Your task to perform on an android device: change the clock display to digital Image 0: 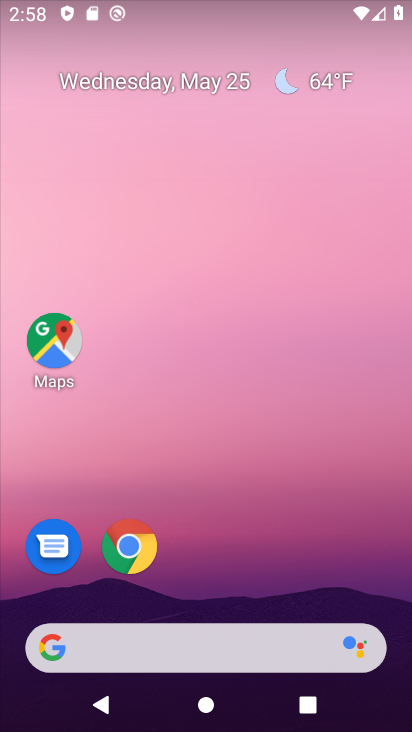
Step 0: drag from (40, 260) to (58, 72)
Your task to perform on an android device: change the clock display to digital Image 1: 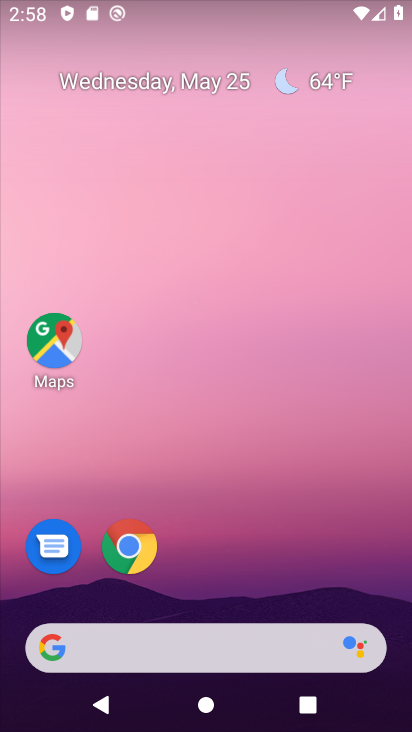
Step 1: drag from (249, 567) to (219, 22)
Your task to perform on an android device: change the clock display to digital Image 2: 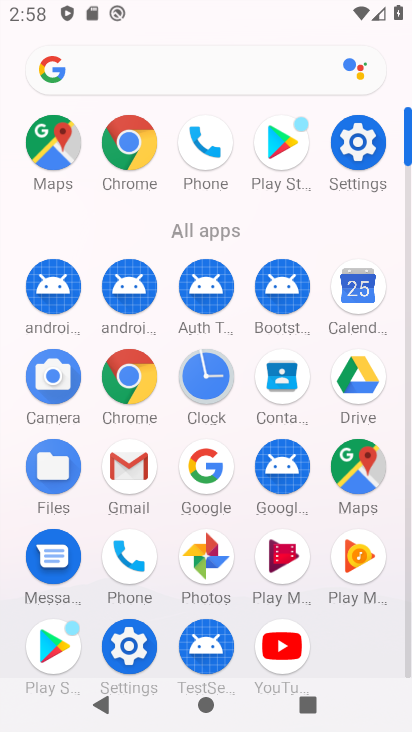
Step 2: click (207, 395)
Your task to perform on an android device: change the clock display to digital Image 3: 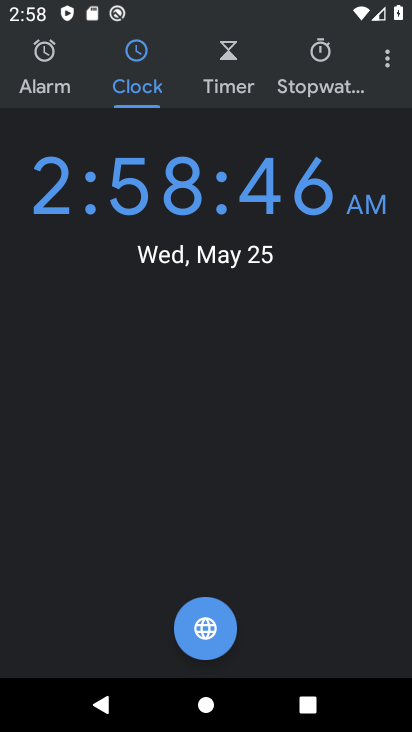
Step 3: click (387, 57)
Your task to perform on an android device: change the clock display to digital Image 4: 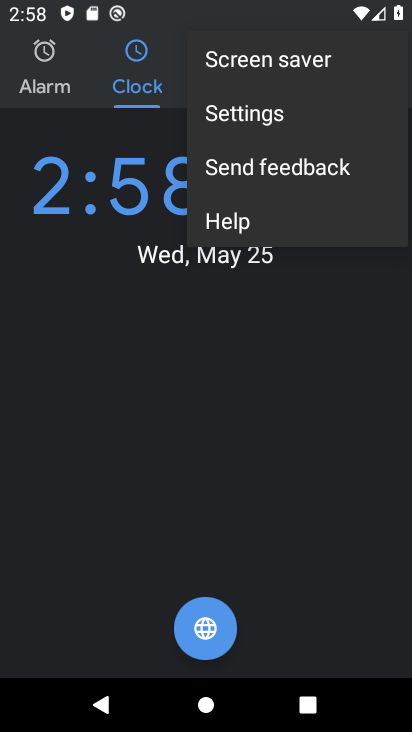
Step 4: click (297, 111)
Your task to perform on an android device: change the clock display to digital Image 5: 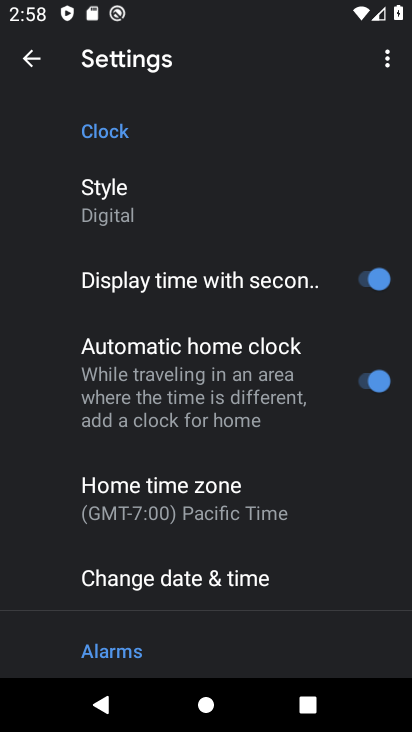
Step 5: click (114, 210)
Your task to perform on an android device: change the clock display to digital Image 6: 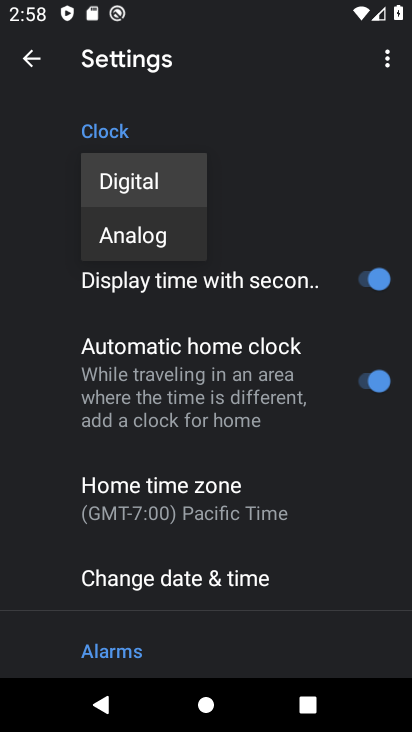
Step 6: task complete